Your task to perform on an android device: Go to location settings Image 0: 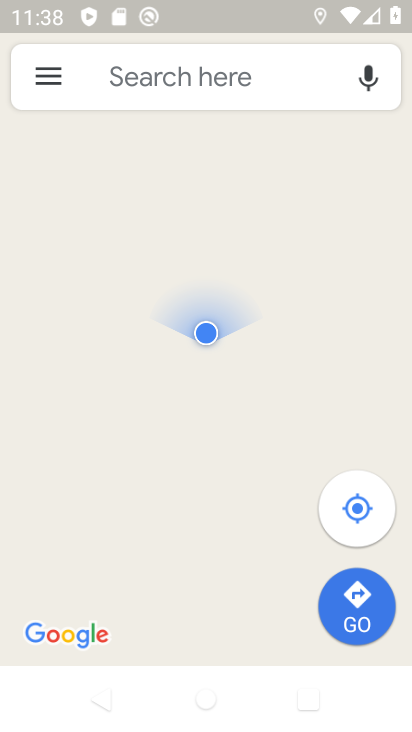
Step 0: press home button
Your task to perform on an android device: Go to location settings Image 1: 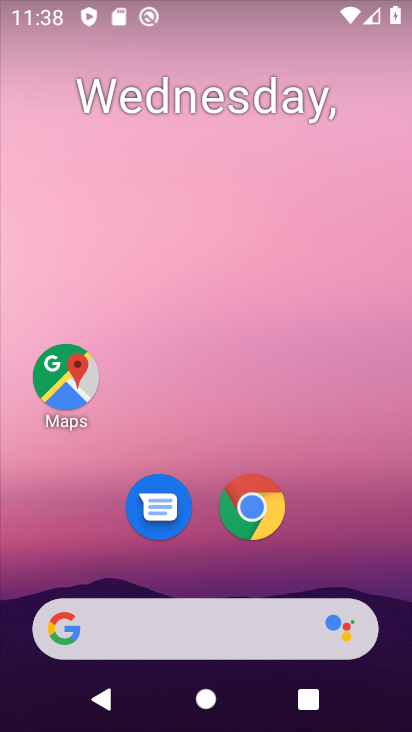
Step 1: drag from (351, 546) to (393, 45)
Your task to perform on an android device: Go to location settings Image 2: 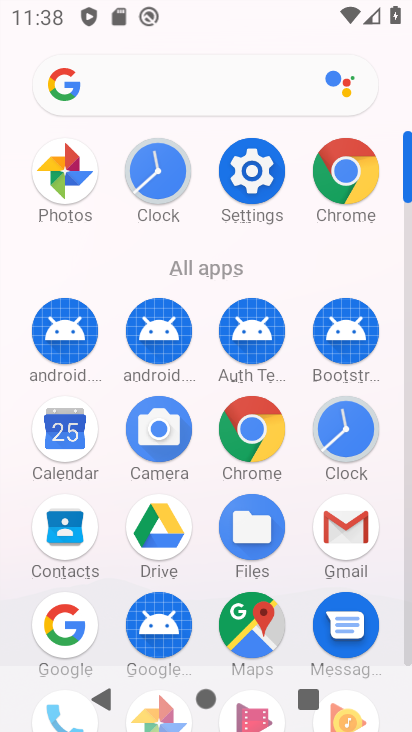
Step 2: click (268, 167)
Your task to perform on an android device: Go to location settings Image 3: 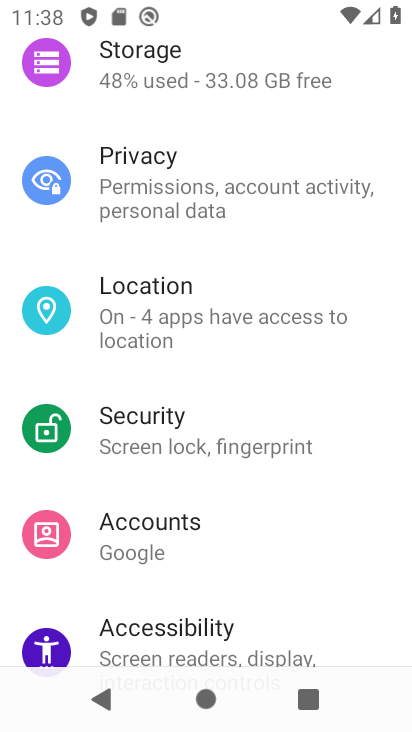
Step 3: click (226, 301)
Your task to perform on an android device: Go to location settings Image 4: 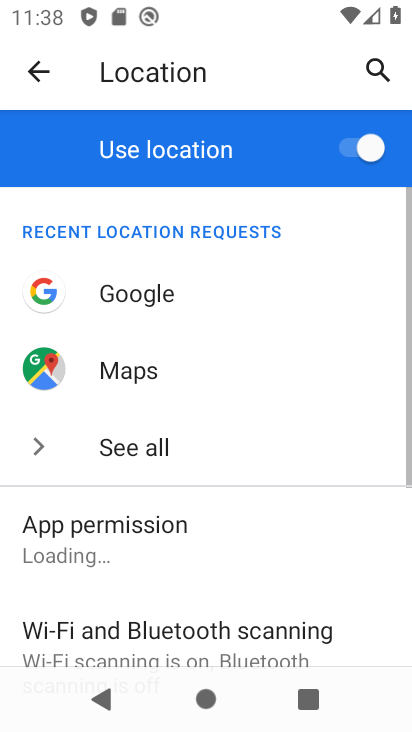
Step 4: task complete